Your task to perform on an android device: Open sound settings Image 0: 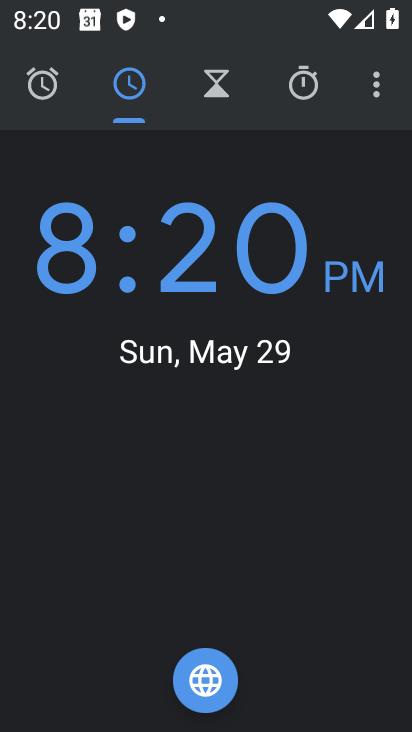
Step 0: press home button
Your task to perform on an android device: Open sound settings Image 1: 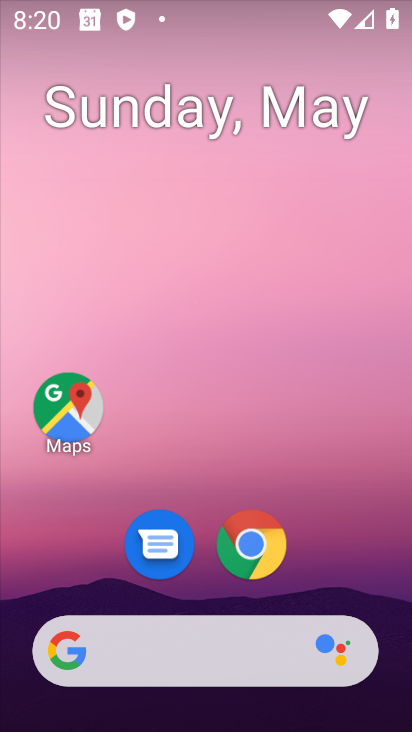
Step 1: drag from (370, 557) to (304, 63)
Your task to perform on an android device: Open sound settings Image 2: 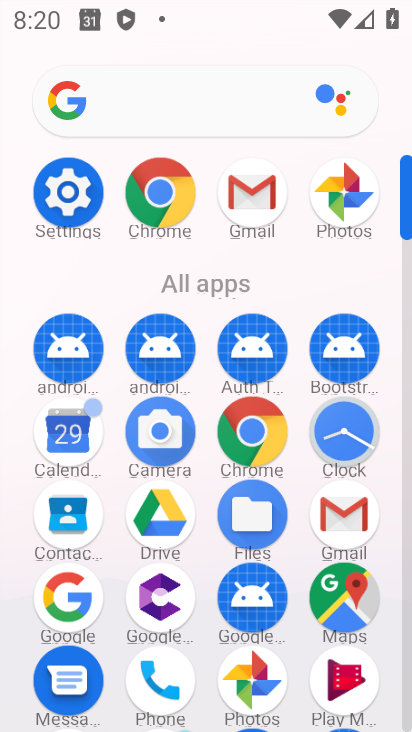
Step 2: click (82, 191)
Your task to perform on an android device: Open sound settings Image 3: 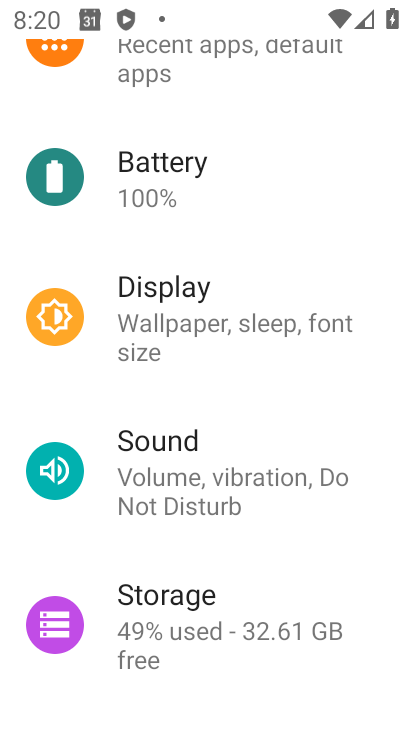
Step 3: drag from (184, 200) to (276, 630)
Your task to perform on an android device: Open sound settings Image 4: 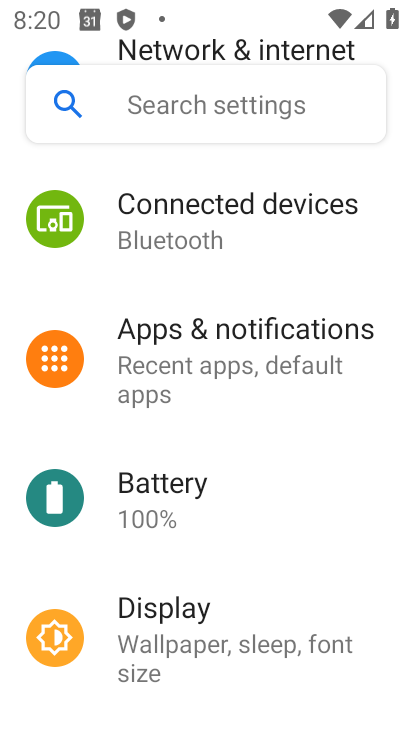
Step 4: drag from (221, 226) to (264, 653)
Your task to perform on an android device: Open sound settings Image 5: 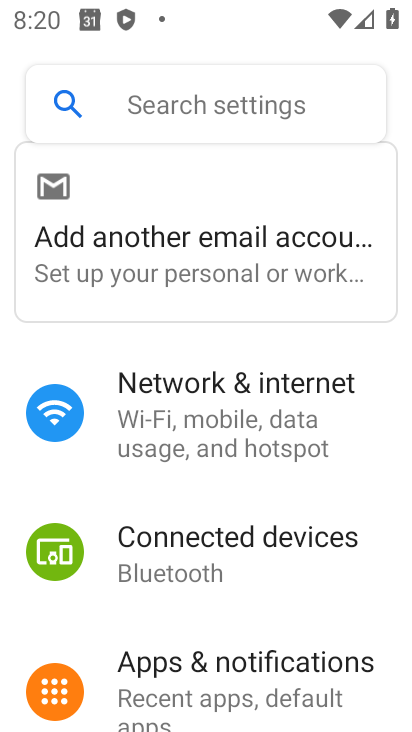
Step 5: drag from (278, 620) to (251, 209)
Your task to perform on an android device: Open sound settings Image 6: 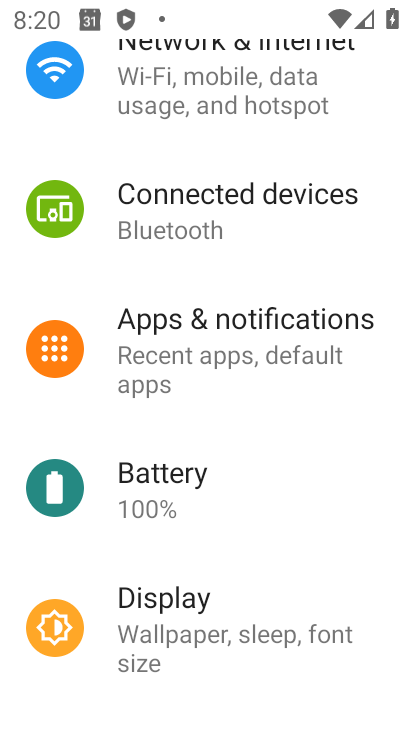
Step 6: drag from (218, 530) to (236, 153)
Your task to perform on an android device: Open sound settings Image 7: 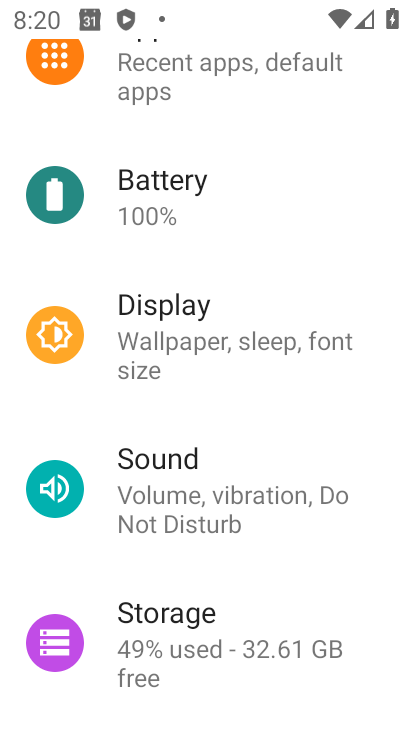
Step 7: click (210, 483)
Your task to perform on an android device: Open sound settings Image 8: 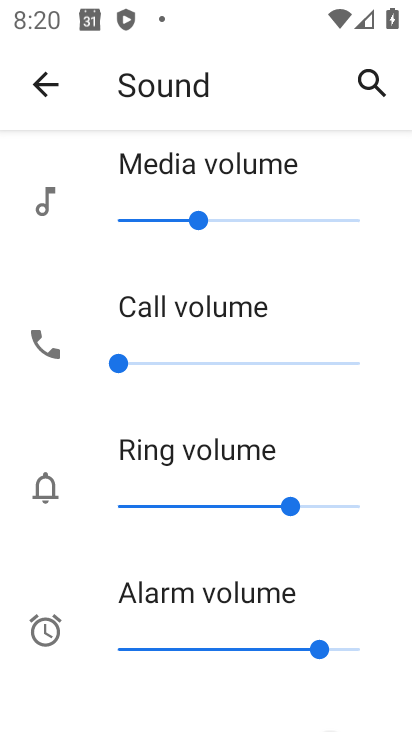
Step 8: task complete